Your task to perform on an android device: change the clock style Image 0: 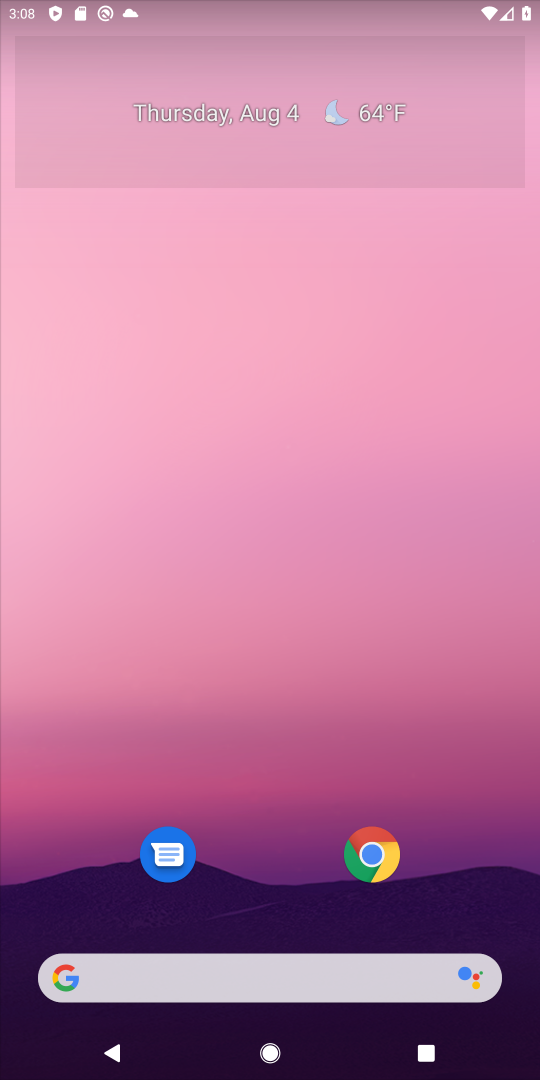
Step 0: drag from (222, 363) to (212, 277)
Your task to perform on an android device: change the clock style Image 1: 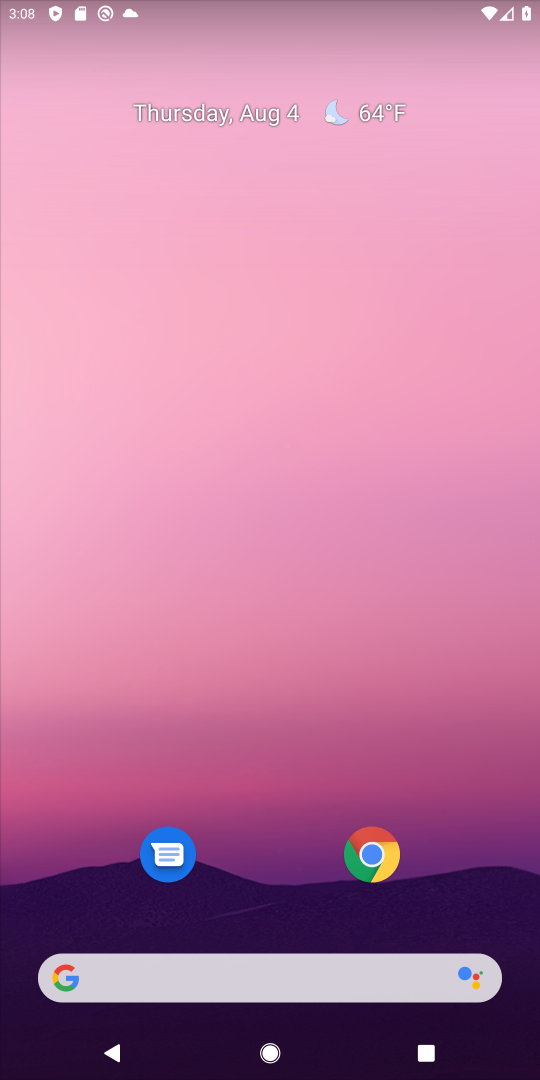
Step 1: drag from (295, 800) to (426, 185)
Your task to perform on an android device: change the clock style Image 2: 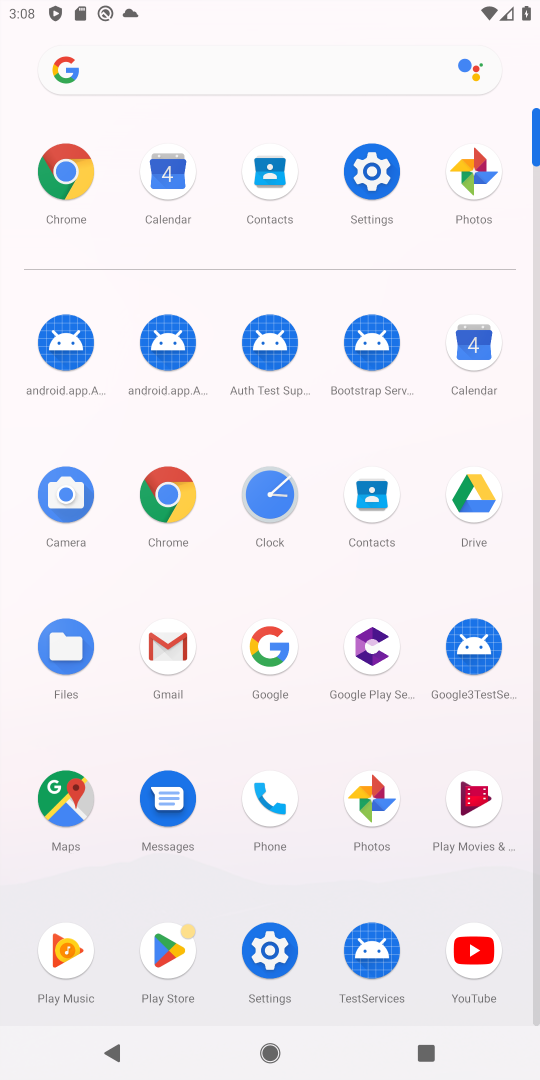
Step 2: click (252, 504)
Your task to perform on an android device: change the clock style Image 3: 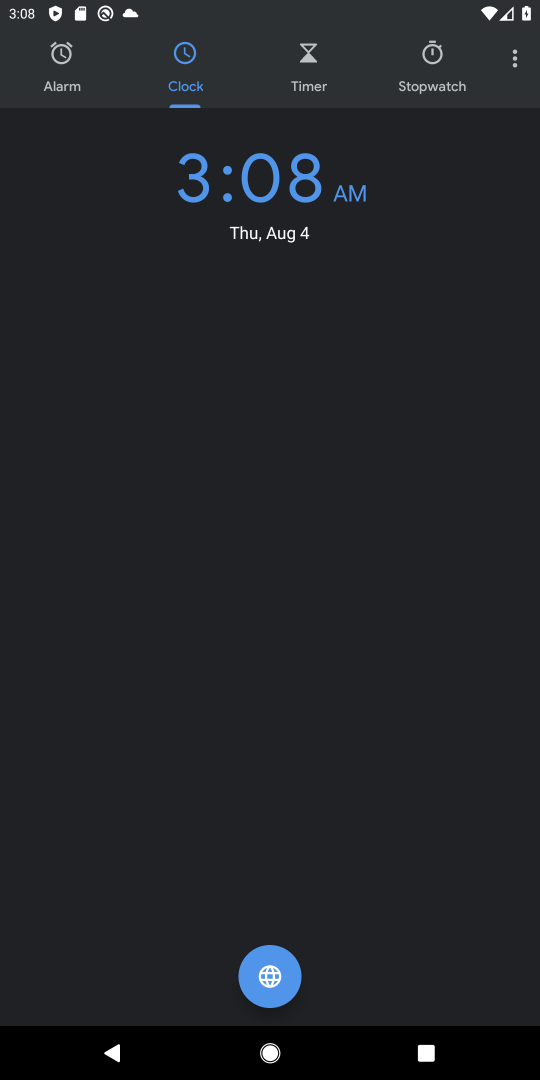
Step 3: click (512, 69)
Your task to perform on an android device: change the clock style Image 4: 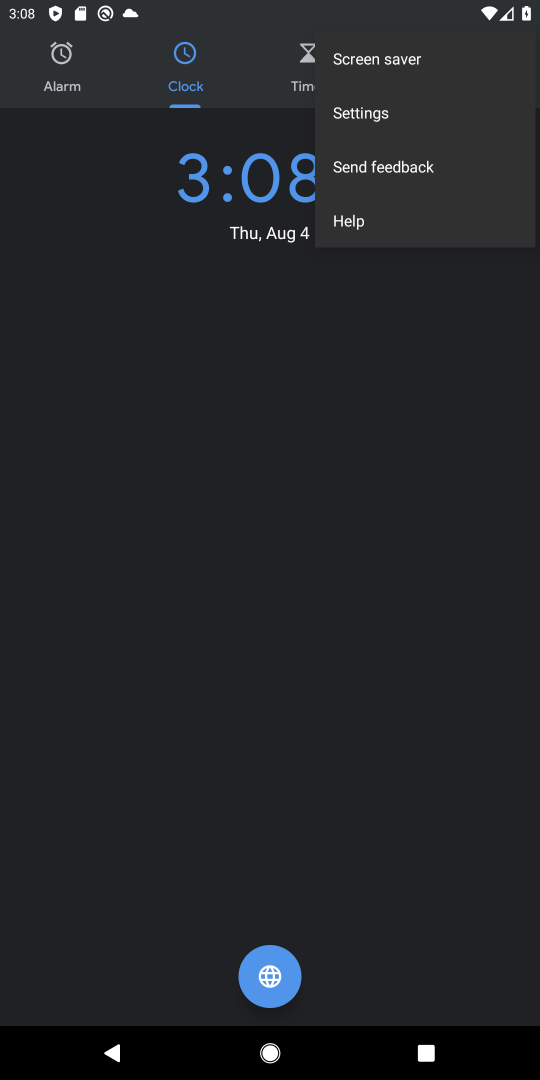
Step 4: click (384, 119)
Your task to perform on an android device: change the clock style Image 5: 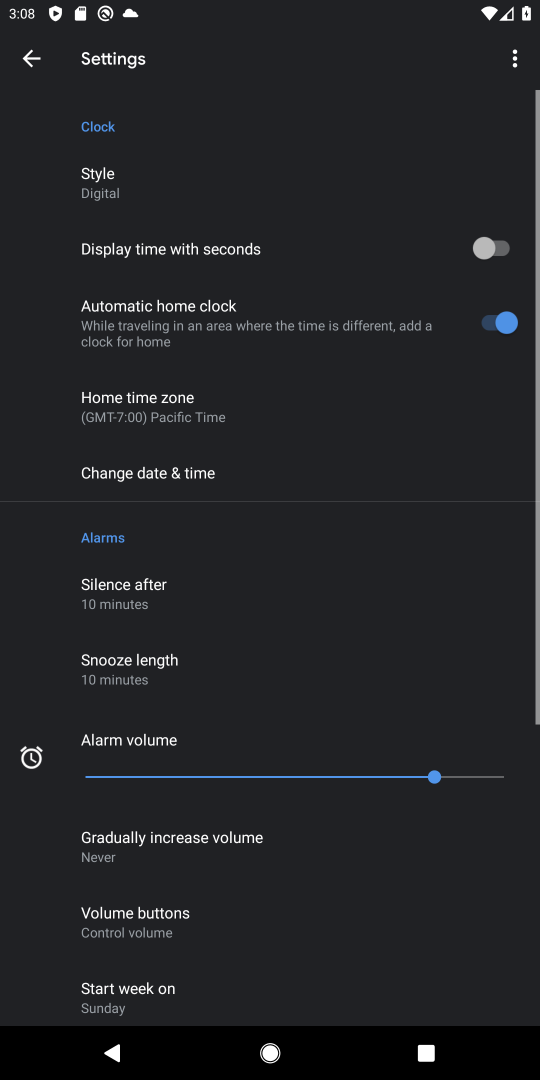
Step 5: click (112, 182)
Your task to perform on an android device: change the clock style Image 6: 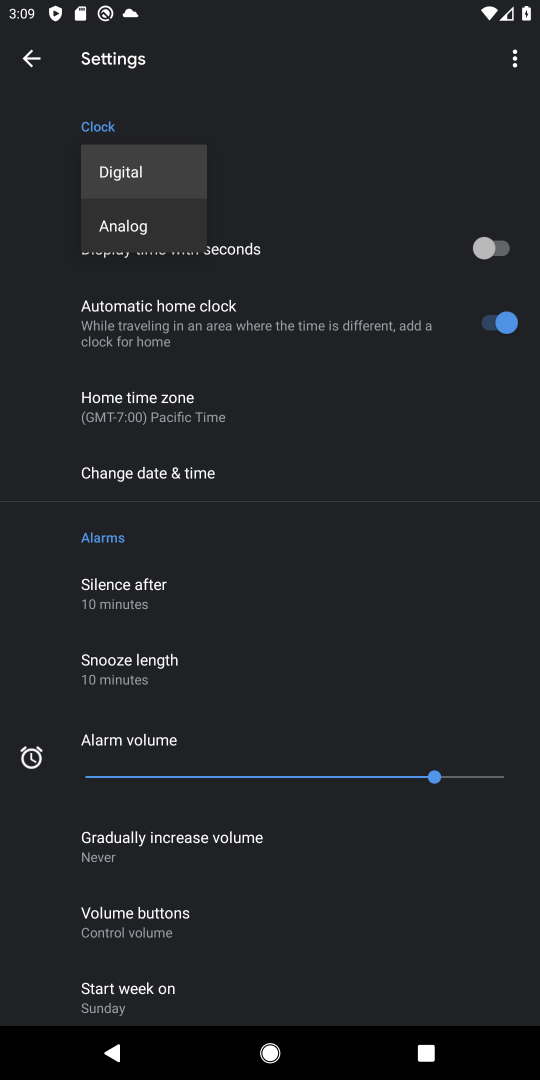
Step 6: click (132, 240)
Your task to perform on an android device: change the clock style Image 7: 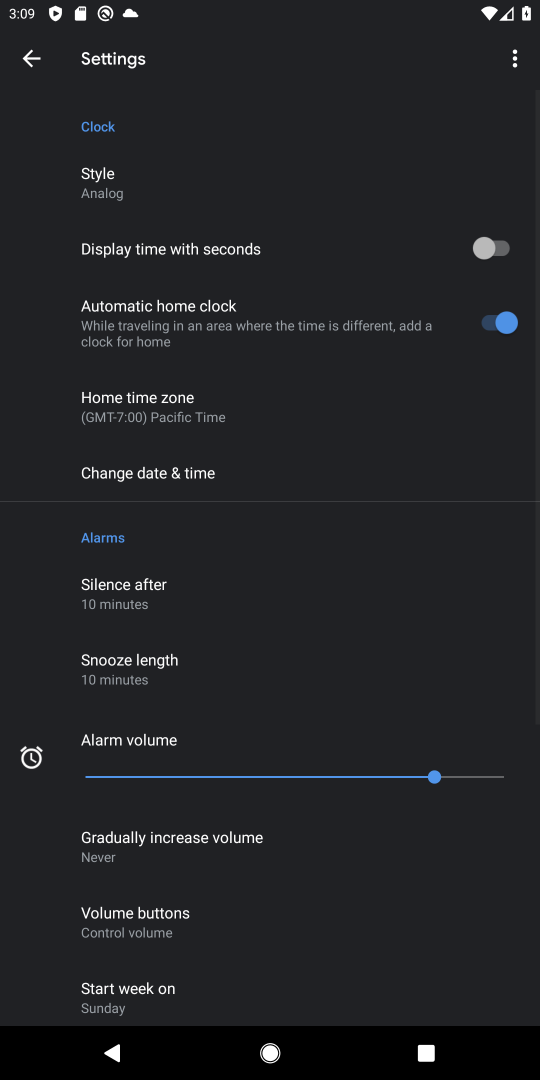
Step 7: task complete